Your task to perform on an android device: Open privacy settings Image 0: 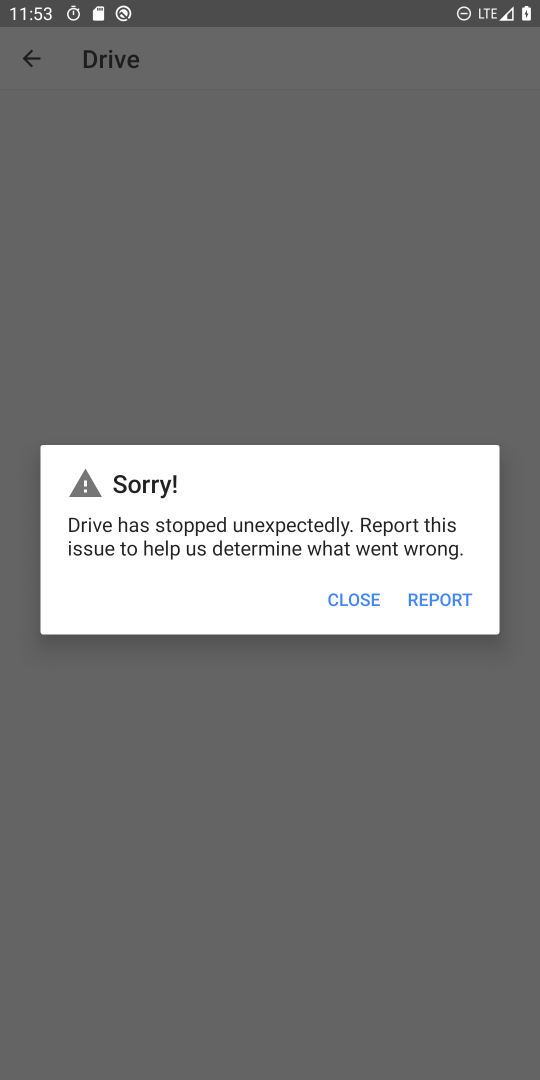
Step 0: drag from (221, 18) to (375, 840)
Your task to perform on an android device: Open privacy settings Image 1: 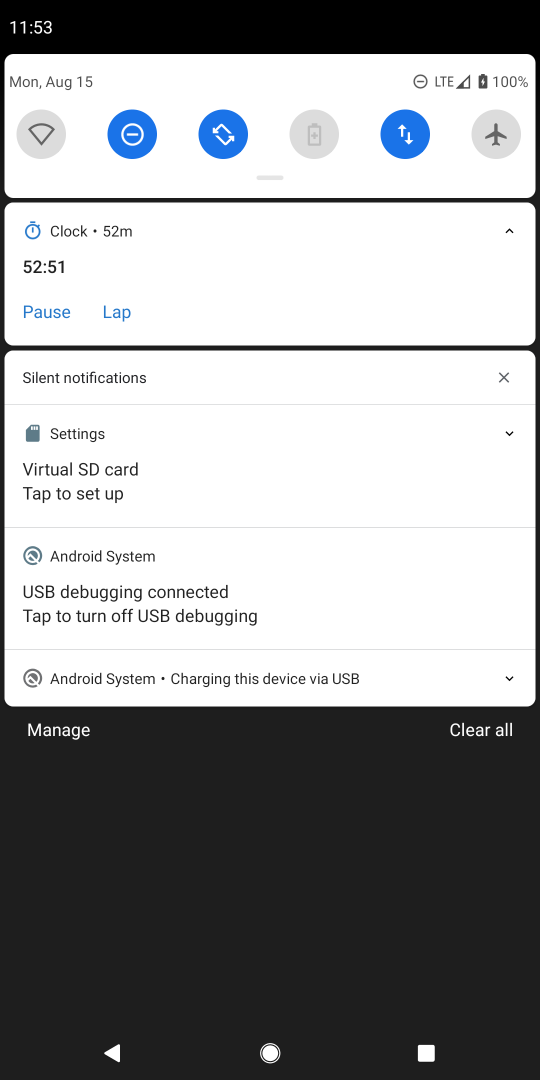
Step 1: drag from (335, 90) to (383, 825)
Your task to perform on an android device: Open privacy settings Image 2: 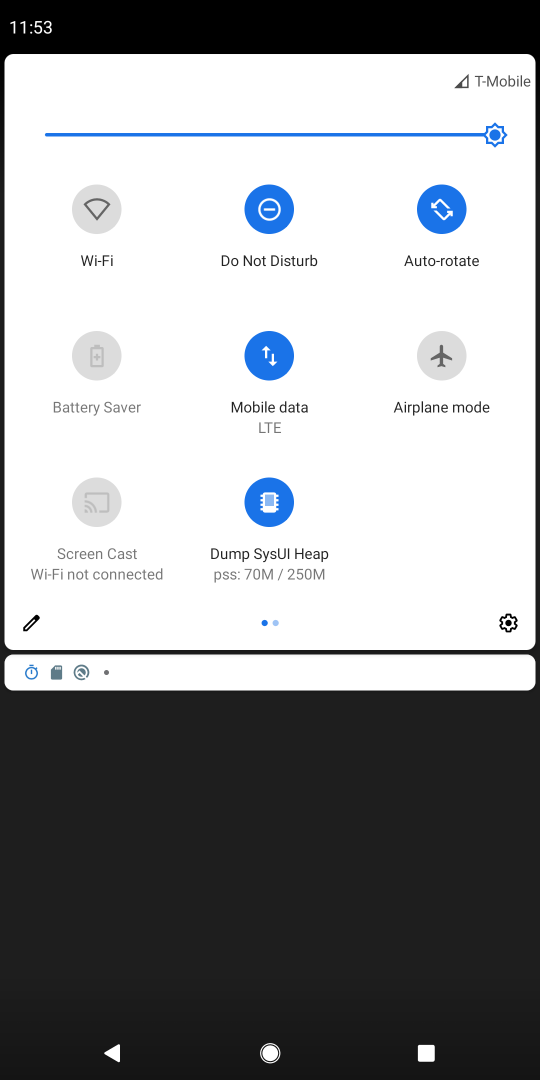
Step 2: click (513, 630)
Your task to perform on an android device: Open privacy settings Image 3: 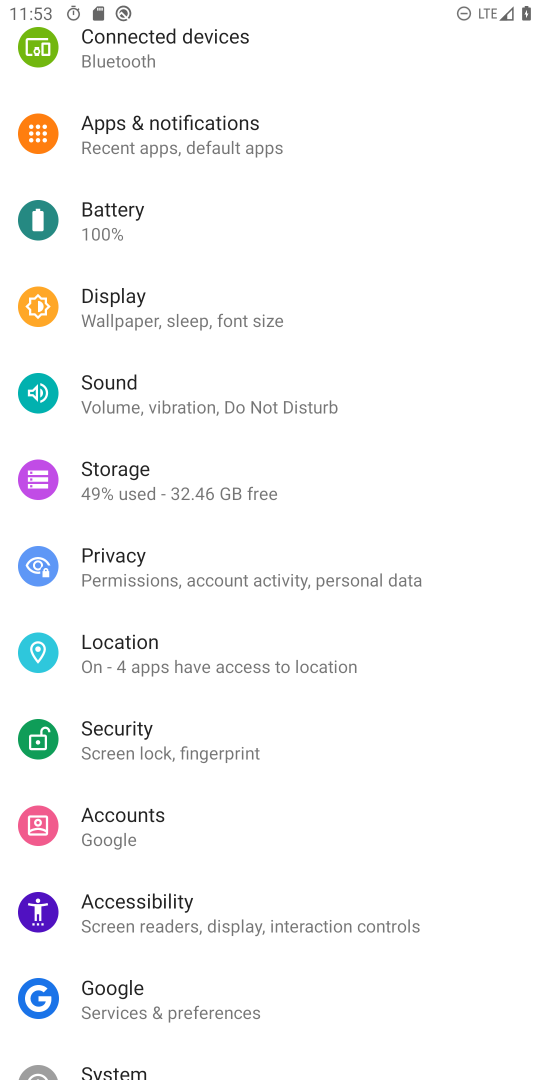
Step 3: click (125, 565)
Your task to perform on an android device: Open privacy settings Image 4: 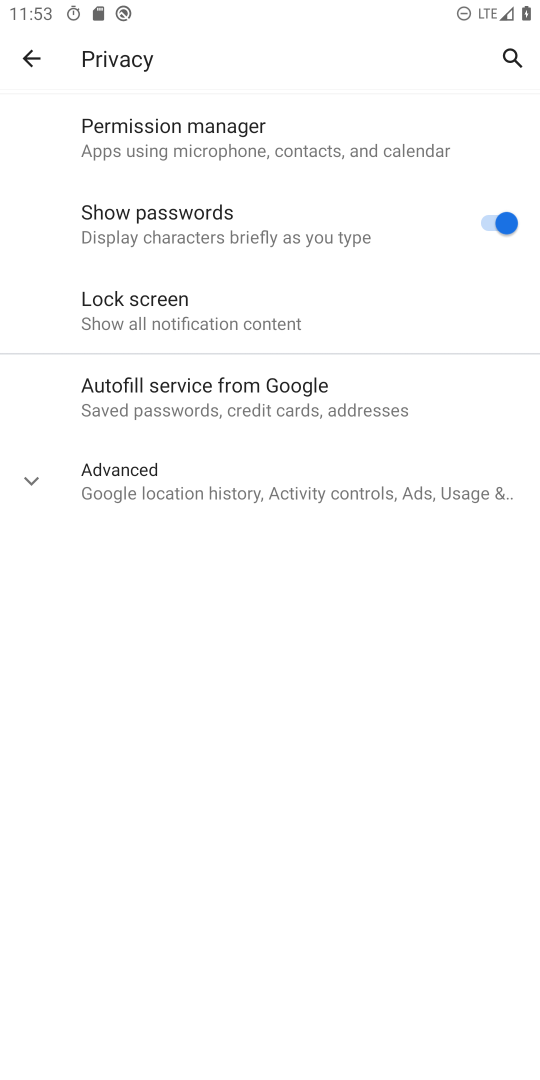
Step 4: task complete